Your task to perform on an android device: toggle sleep mode Image 0: 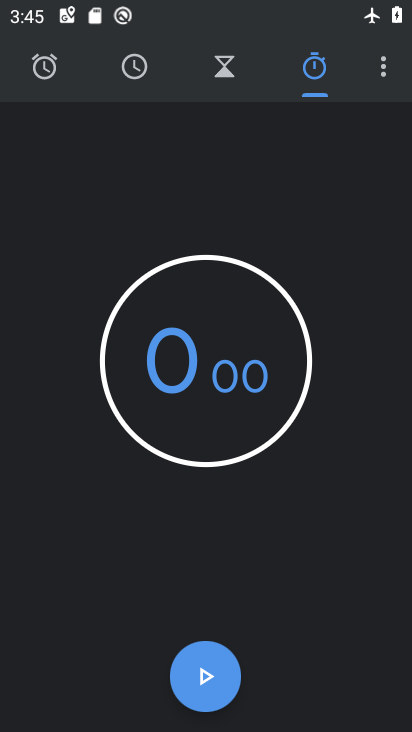
Step 0: press home button
Your task to perform on an android device: toggle sleep mode Image 1: 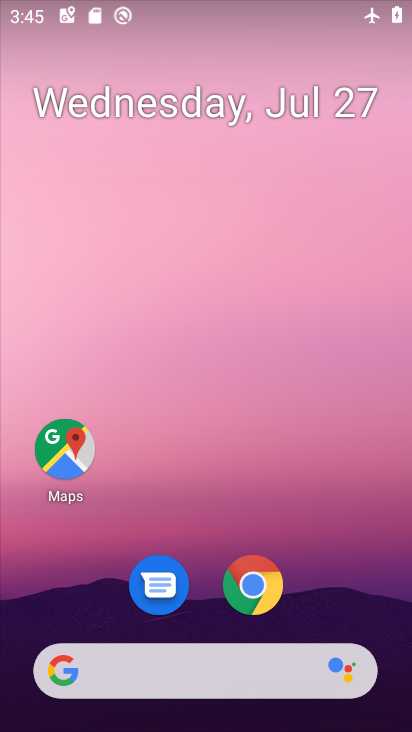
Step 1: drag from (322, 547) to (264, 123)
Your task to perform on an android device: toggle sleep mode Image 2: 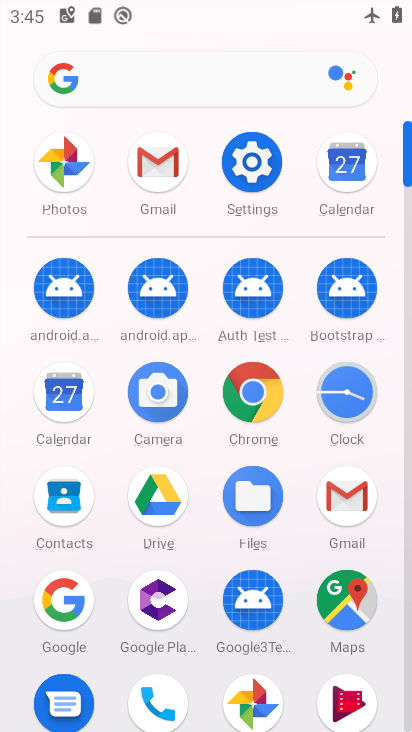
Step 2: click (255, 145)
Your task to perform on an android device: toggle sleep mode Image 3: 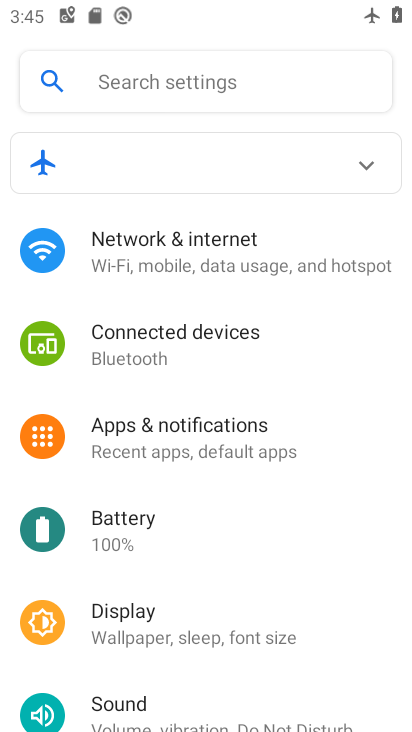
Step 3: click (167, 631)
Your task to perform on an android device: toggle sleep mode Image 4: 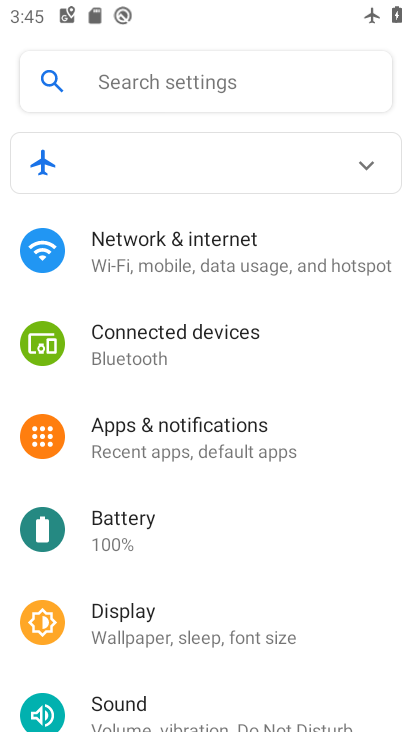
Step 4: click (131, 623)
Your task to perform on an android device: toggle sleep mode Image 5: 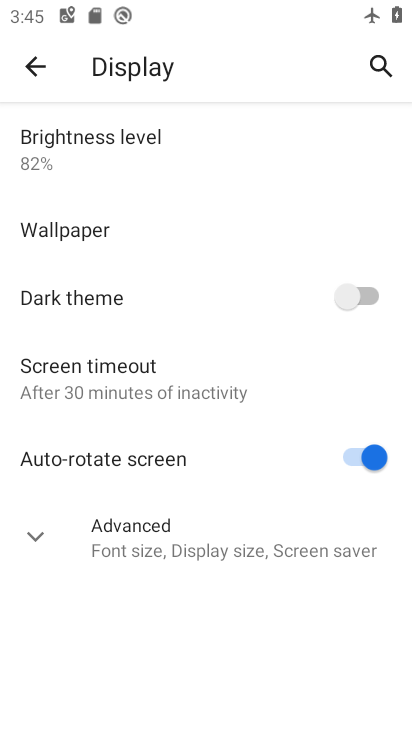
Step 5: click (36, 532)
Your task to perform on an android device: toggle sleep mode Image 6: 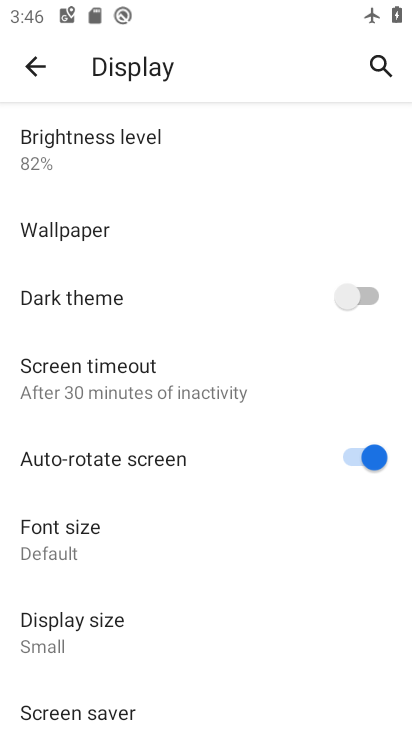
Step 6: task complete